Your task to perform on an android device: toggle notification dots Image 0: 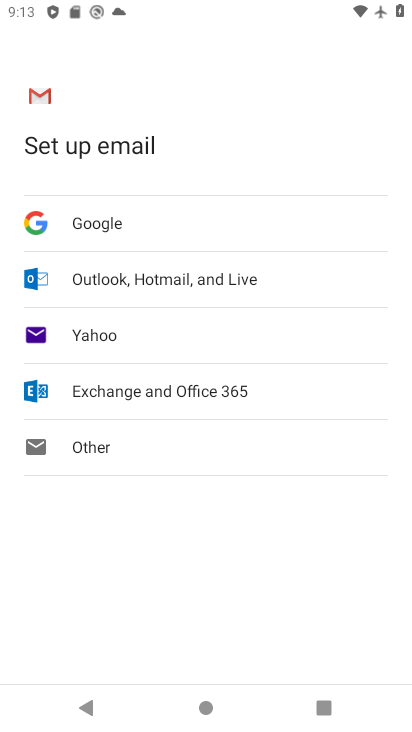
Step 0: press home button
Your task to perform on an android device: toggle notification dots Image 1: 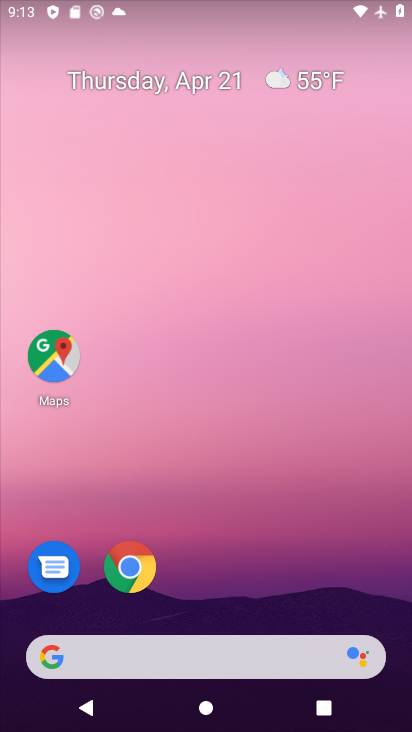
Step 1: drag from (371, 605) to (318, 133)
Your task to perform on an android device: toggle notification dots Image 2: 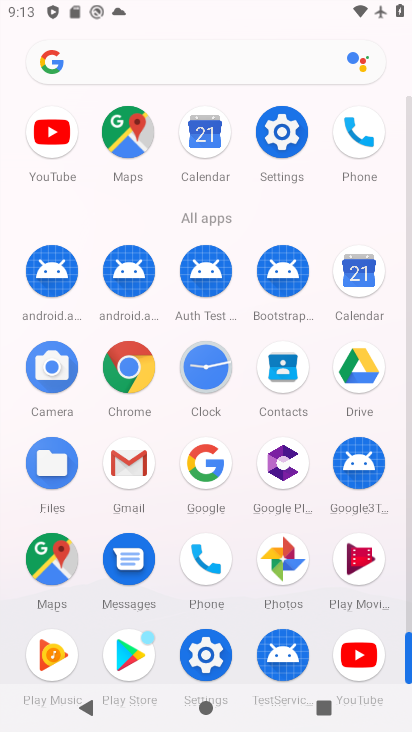
Step 2: click (201, 657)
Your task to perform on an android device: toggle notification dots Image 3: 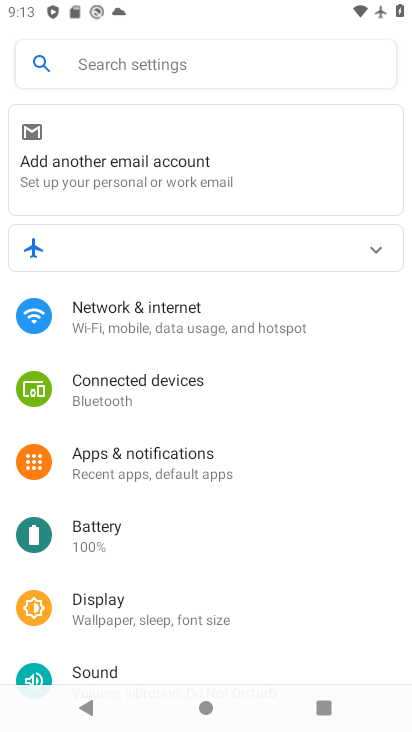
Step 3: click (152, 475)
Your task to perform on an android device: toggle notification dots Image 4: 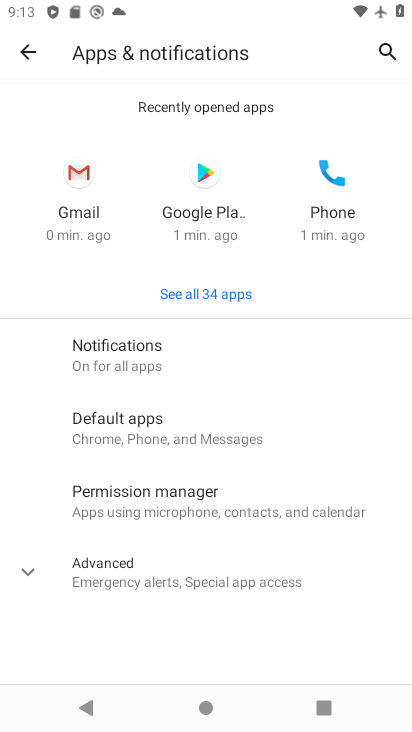
Step 4: click (25, 571)
Your task to perform on an android device: toggle notification dots Image 5: 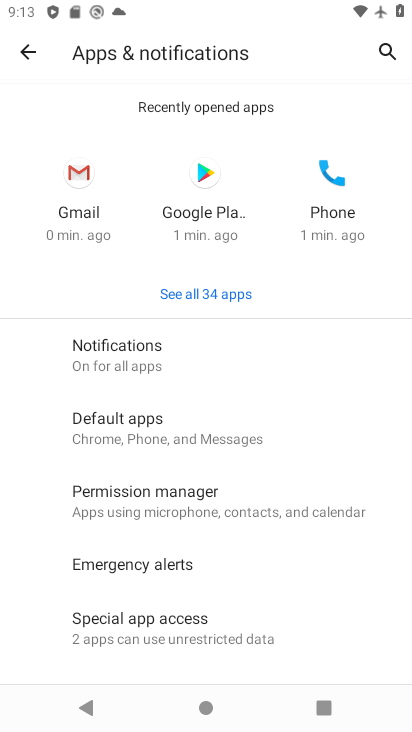
Step 5: drag from (313, 615) to (348, 304)
Your task to perform on an android device: toggle notification dots Image 6: 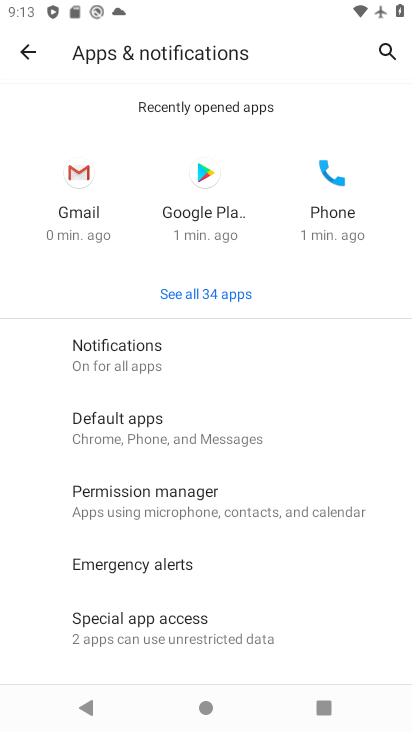
Step 6: click (114, 359)
Your task to perform on an android device: toggle notification dots Image 7: 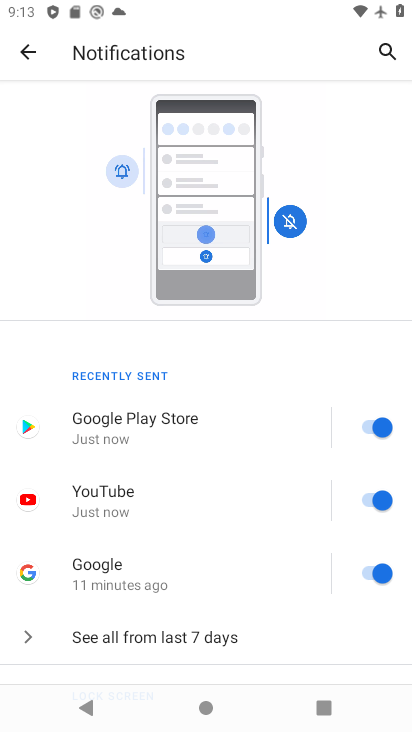
Step 7: drag from (316, 632) to (314, 216)
Your task to perform on an android device: toggle notification dots Image 8: 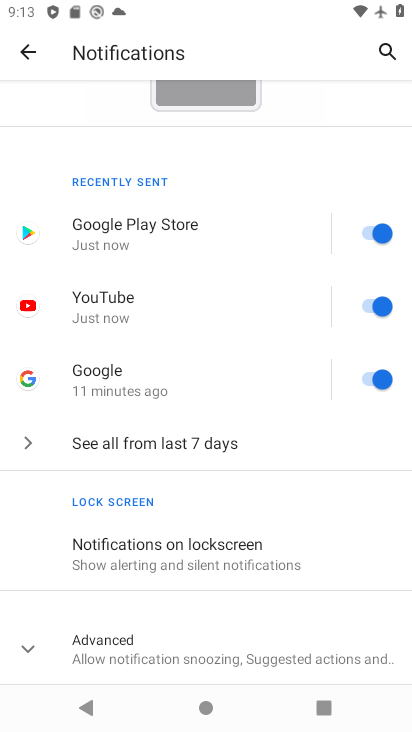
Step 8: click (22, 641)
Your task to perform on an android device: toggle notification dots Image 9: 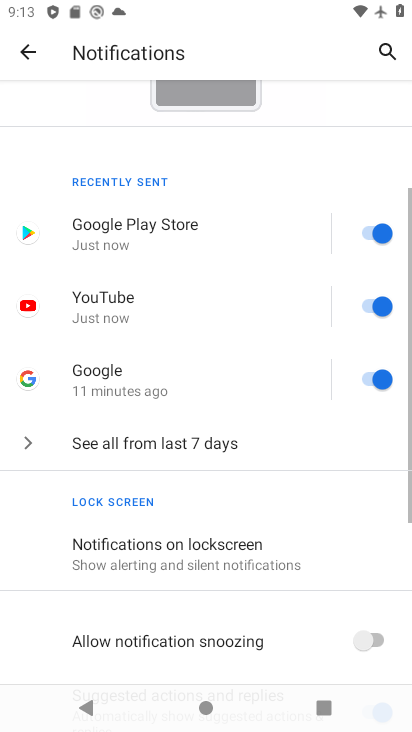
Step 9: drag from (350, 611) to (296, 178)
Your task to perform on an android device: toggle notification dots Image 10: 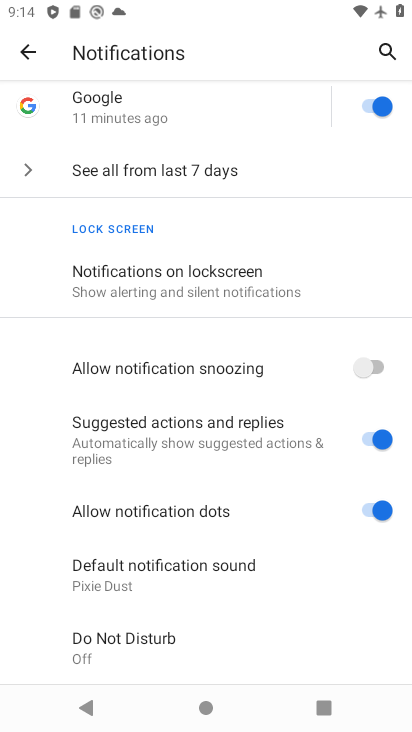
Step 10: click (369, 506)
Your task to perform on an android device: toggle notification dots Image 11: 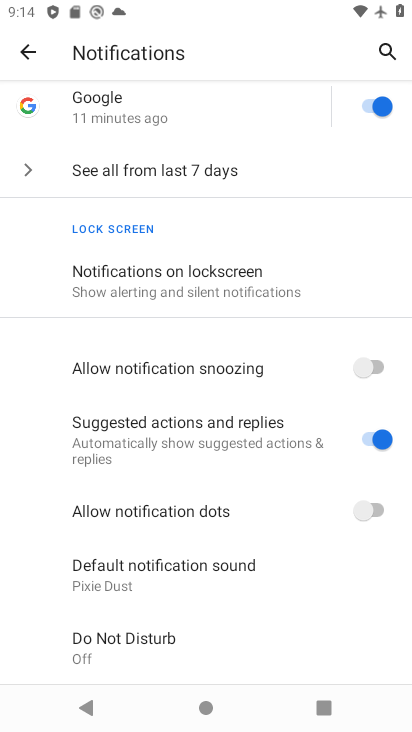
Step 11: task complete